Your task to perform on an android device: allow cookies in the chrome app Image 0: 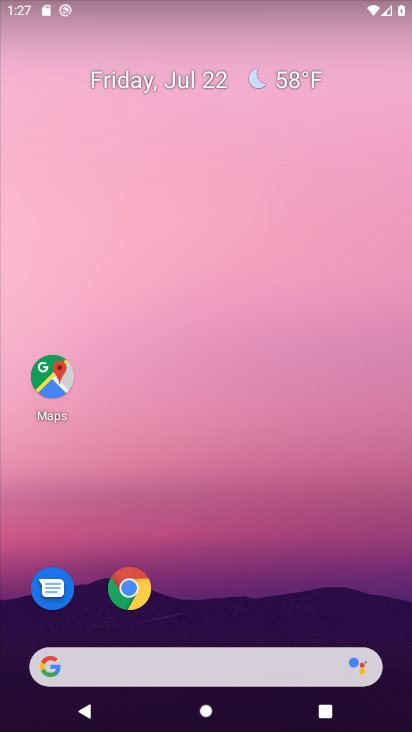
Step 0: press home button
Your task to perform on an android device: allow cookies in the chrome app Image 1: 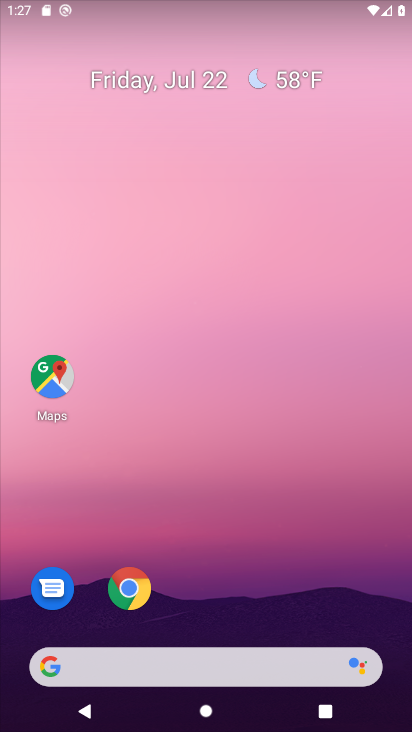
Step 1: drag from (230, 649) to (175, 372)
Your task to perform on an android device: allow cookies in the chrome app Image 2: 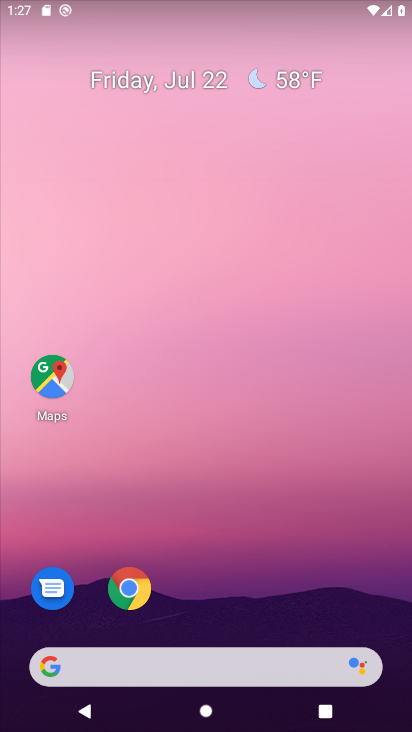
Step 2: click (122, 601)
Your task to perform on an android device: allow cookies in the chrome app Image 3: 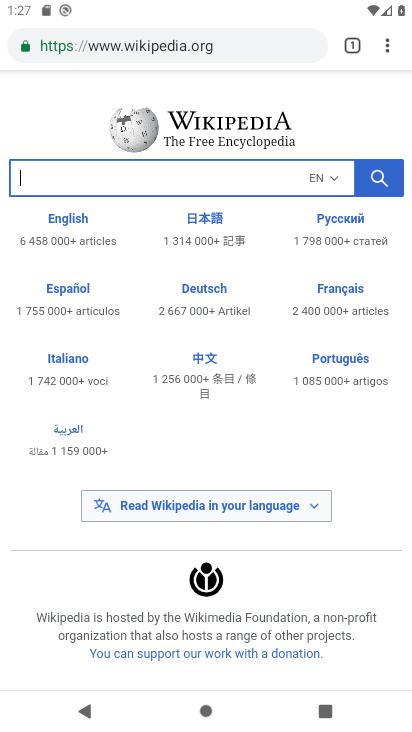
Step 3: drag from (387, 39) to (237, 546)
Your task to perform on an android device: allow cookies in the chrome app Image 4: 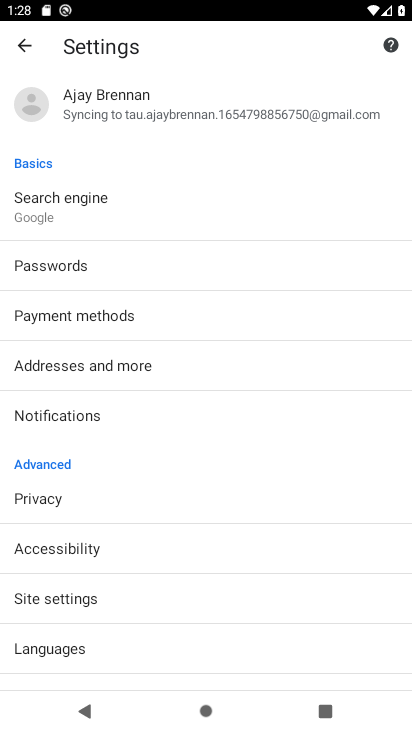
Step 4: click (43, 594)
Your task to perform on an android device: allow cookies in the chrome app Image 5: 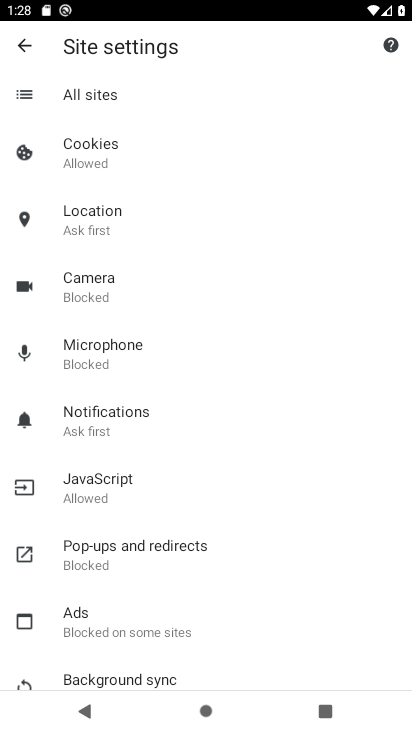
Step 5: click (79, 146)
Your task to perform on an android device: allow cookies in the chrome app Image 6: 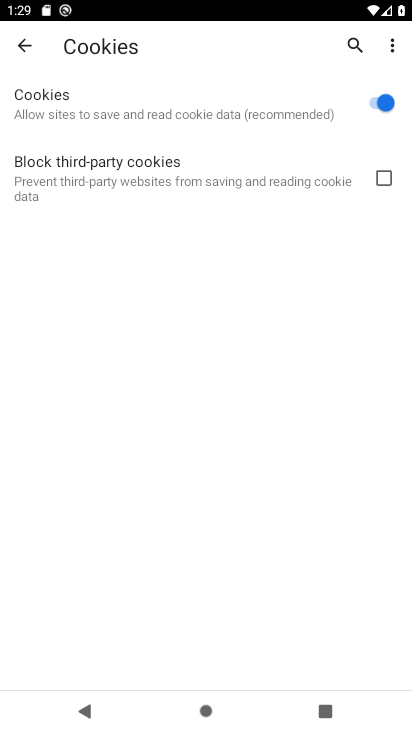
Step 6: task complete